Your task to perform on an android device: visit the assistant section in the google photos Image 0: 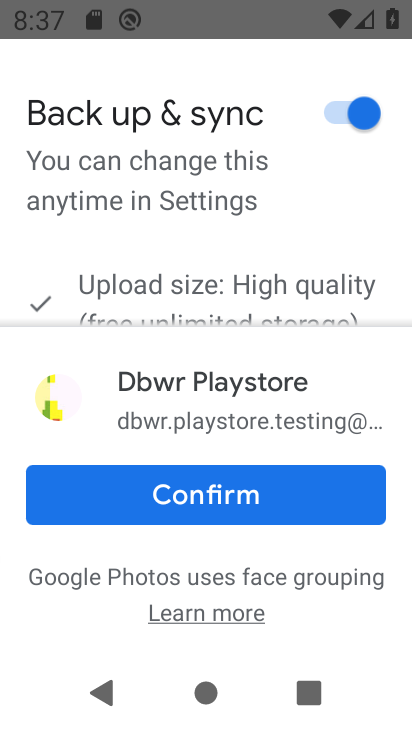
Step 0: click (195, 498)
Your task to perform on an android device: visit the assistant section in the google photos Image 1: 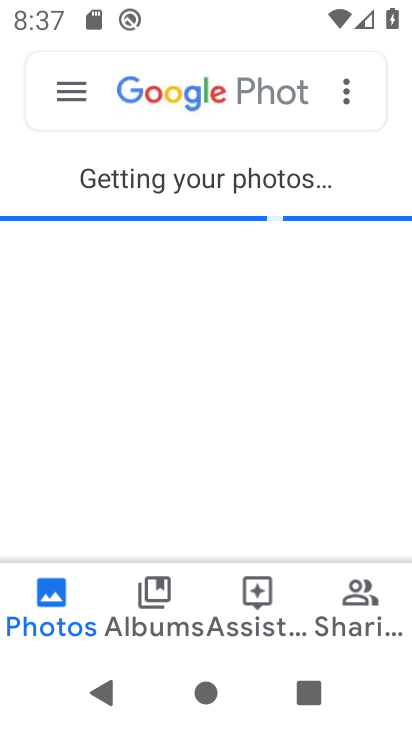
Step 1: click (255, 606)
Your task to perform on an android device: visit the assistant section in the google photos Image 2: 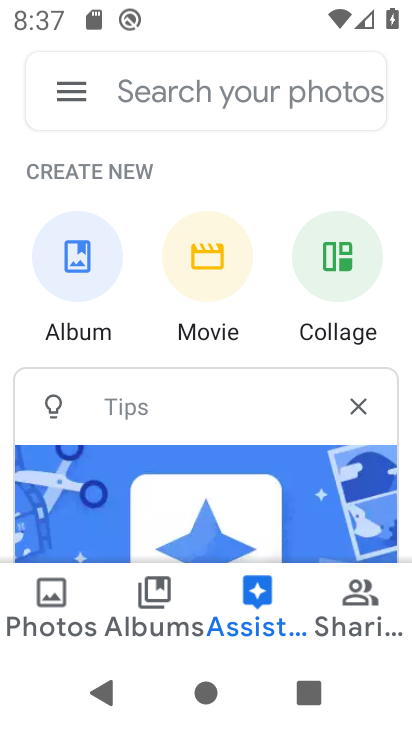
Step 2: task complete